Your task to perform on an android device: add a contact Image 0: 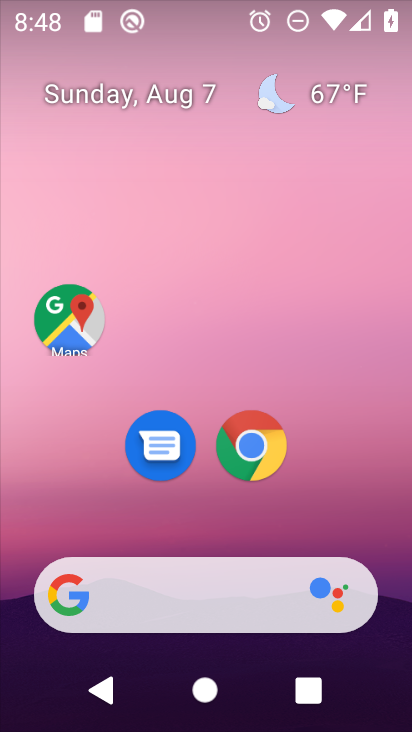
Step 0: drag from (206, 536) to (215, 104)
Your task to perform on an android device: add a contact Image 1: 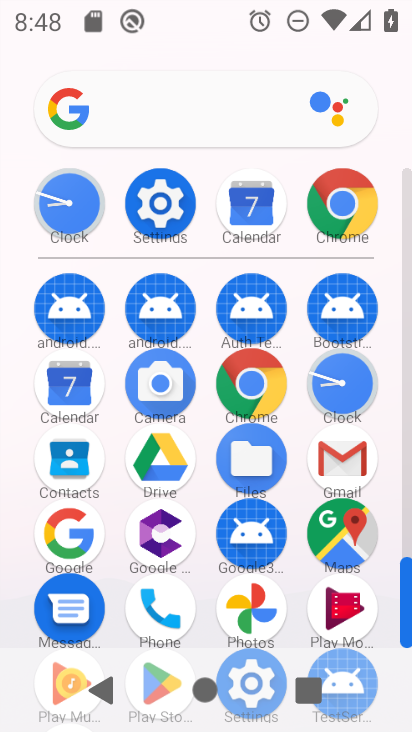
Step 1: click (61, 449)
Your task to perform on an android device: add a contact Image 2: 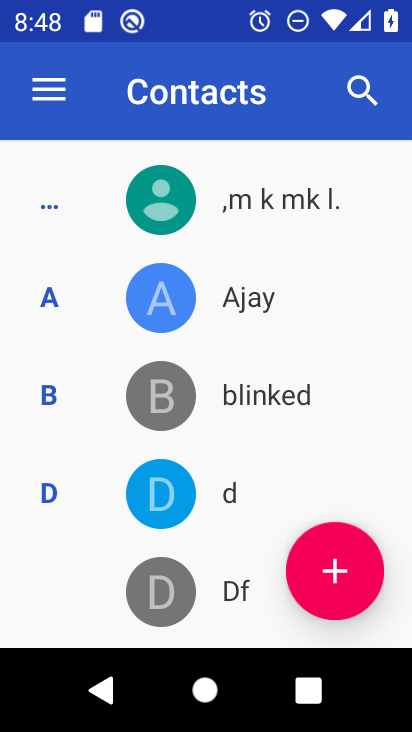
Step 2: click (334, 567)
Your task to perform on an android device: add a contact Image 3: 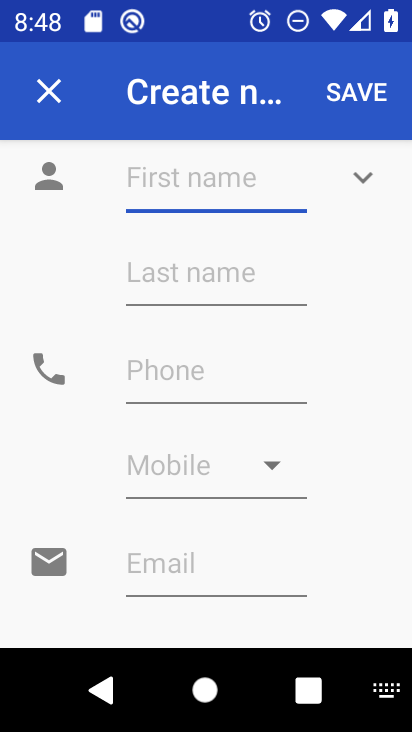
Step 3: type "fxszrfvhf"
Your task to perform on an android device: add a contact Image 4: 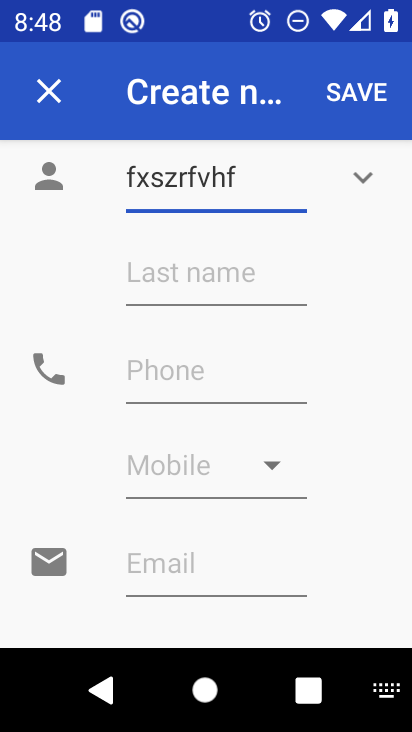
Step 4: click (359, 99)
Your task to perform on an android device: add a contact Image 5: 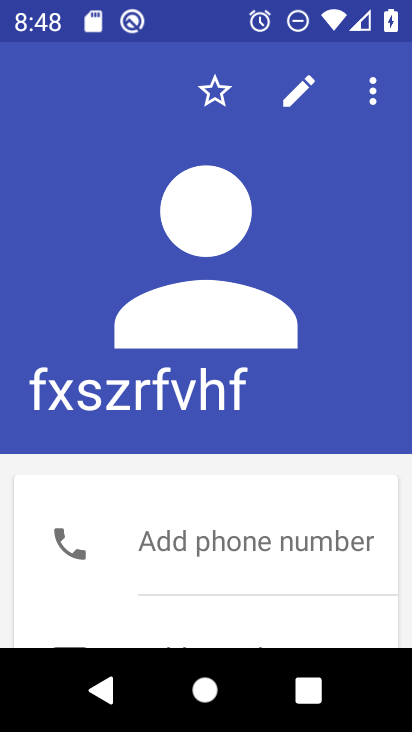
Step 5: task complete